Your task to perform on an android device: Go to eBay Image 0: 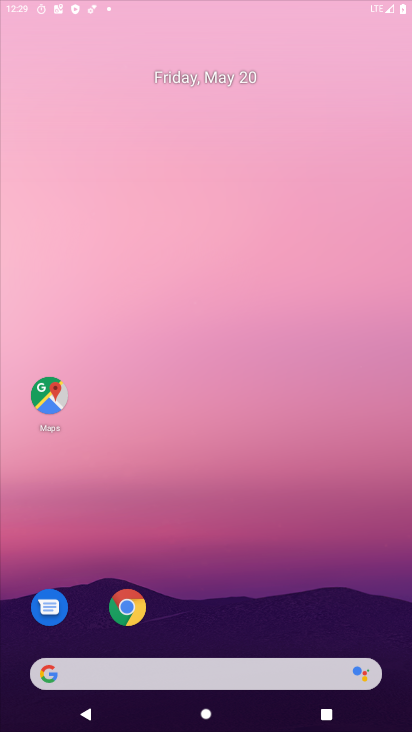
Step 0: drag from (341, 593) to (313, 150)
Your task to perform on an android device: Go to eBay Image 1: 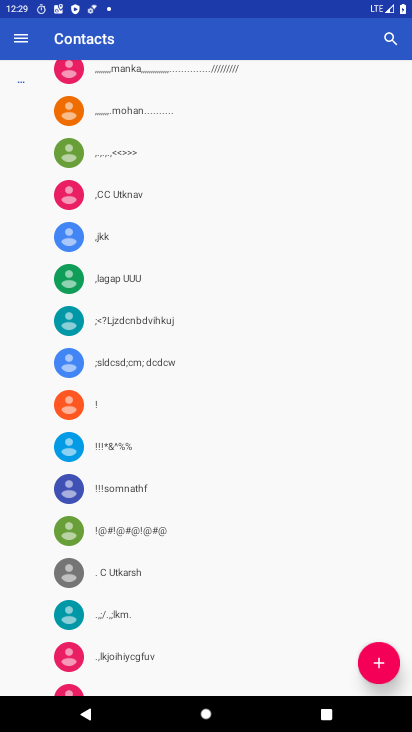
Step 1: press home button
Your task to perform on an android device: Go to eBay Image 2: 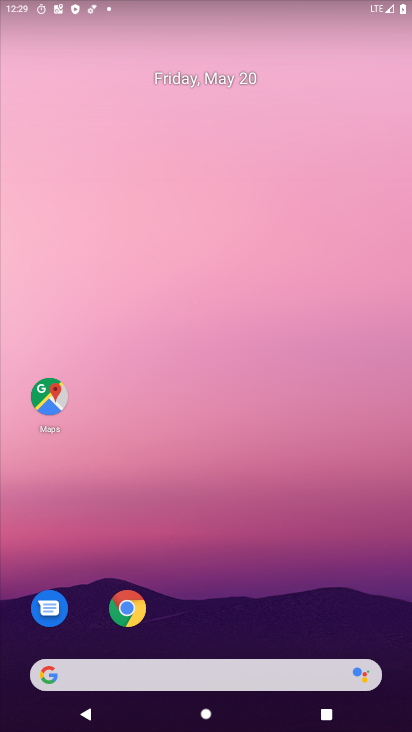
Step 2: drag from (394, 585) to (273, 75)
Your task to perform on an android device: Go to eBay Image 3: 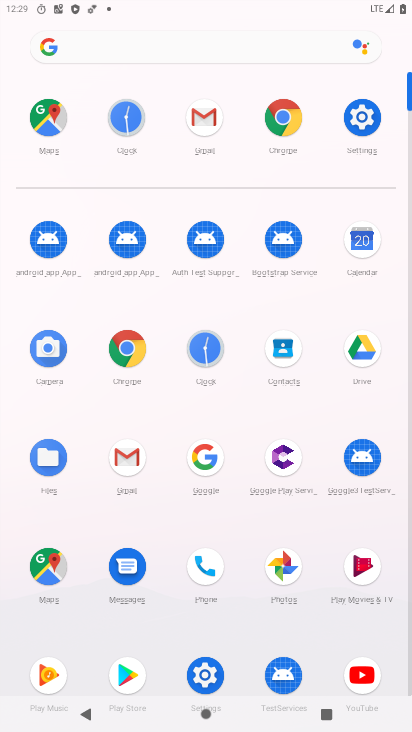
Step 3: click (130, 351)
Your task to perform on an android device: Go to eBay Image 4: 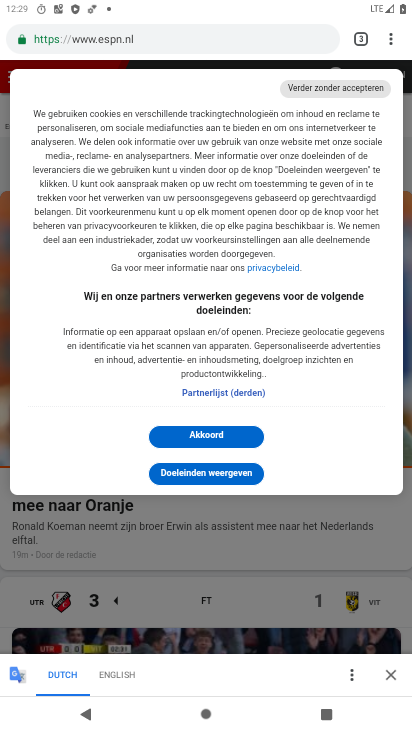
Step 4: click (366, 38)
Your task to perform on an android device: Go to eBay Image 5: 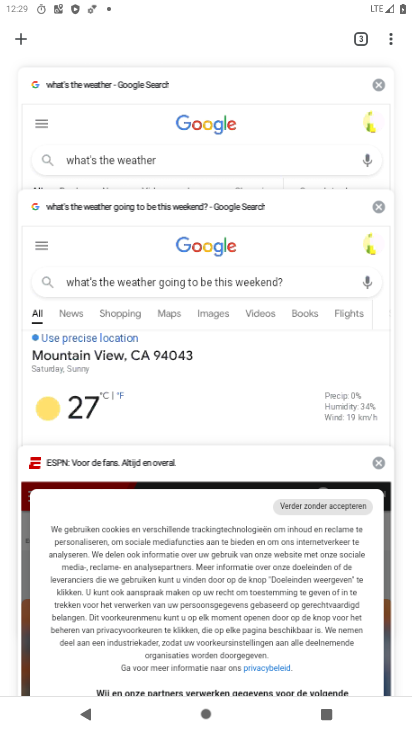
Step 5: click (15, 45)
Your task to perform on an android device: Go to eBay Image 6: 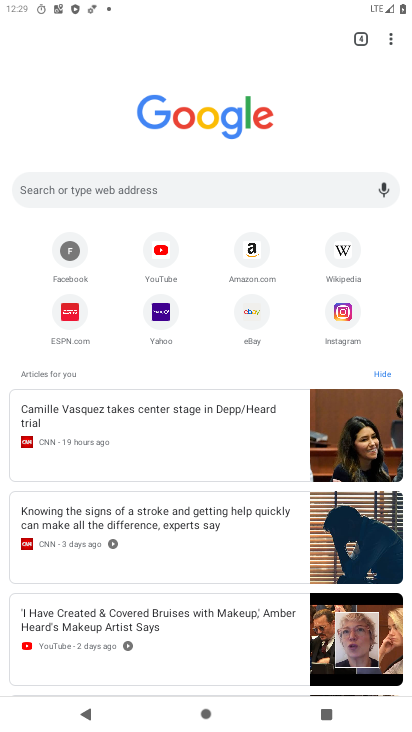
Step 6: click (206, 181)
Your task to perform on an android device: Go to eBay Image 7: 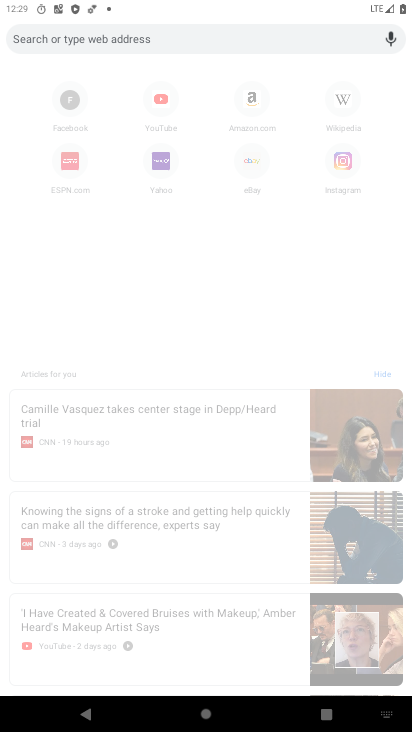
Step 7: type "ebay"
Your task to perform on an android device: Go to eBay Image 8: 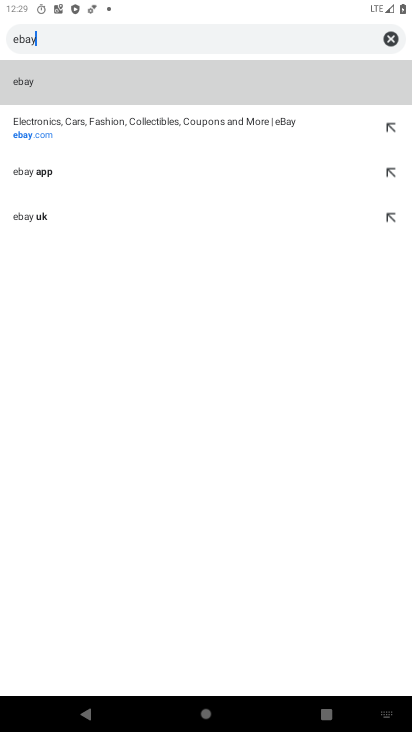
Step 8: click (27, 78)
Your task to perform on an android device: Go to eBay Image 9: 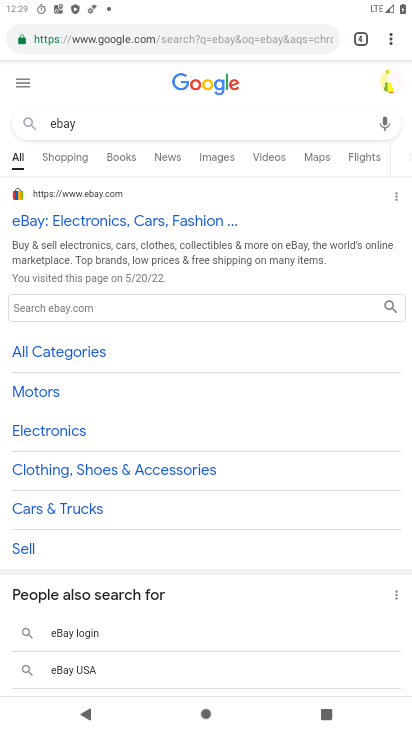
Step 9: click (121, 224)
Your task to perform on an android device: Go to eBay Image 10: 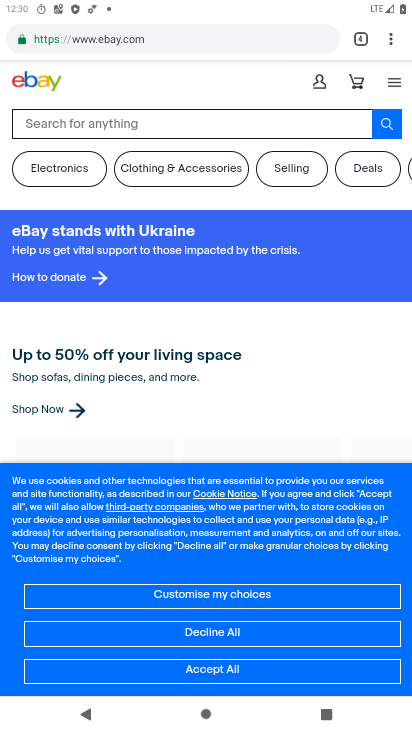
Step 10: task complete